Your task to perform on an android device: Search for seafood restaurants on Google Maps Image 0: 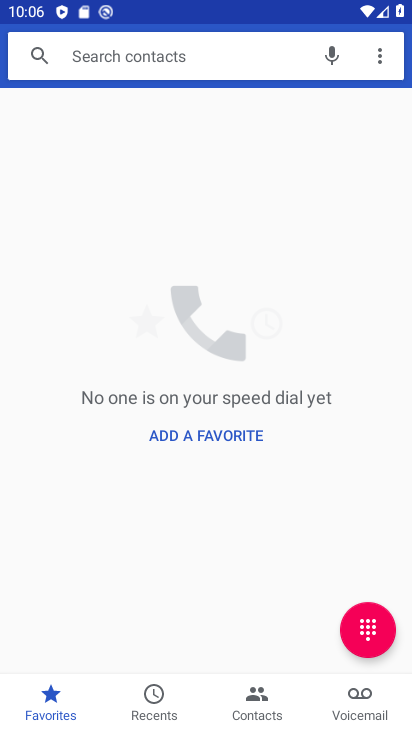
Step 0: drag from (304, 635) to (267, 176)
Your task to perform on an android device: Search for seafood restaurants on Google Maps Image 1: 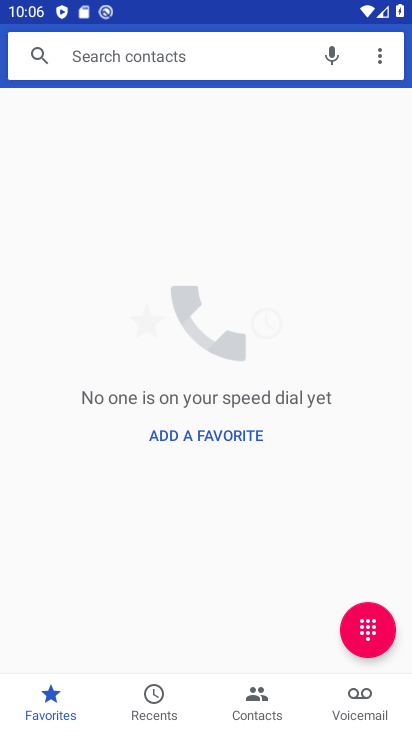
Step 1: press home button
Your task to perform on an android device: Search for seafood restaurants on Google Maps Image 2: 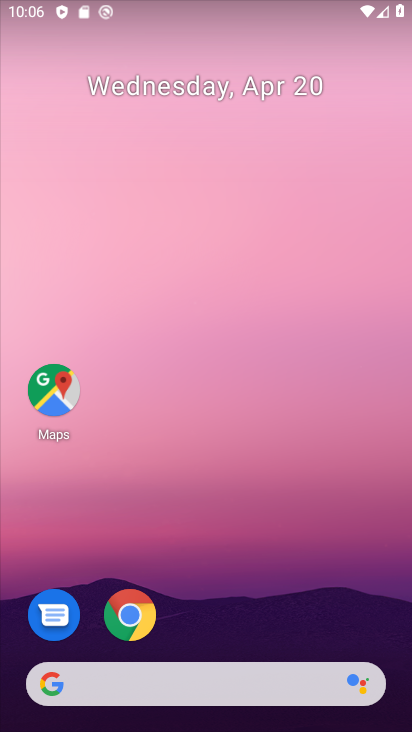
Step 2: click (56, 389)
Your task to perform on an android device: Search for seafood restaurants on Google Maps Image 3: 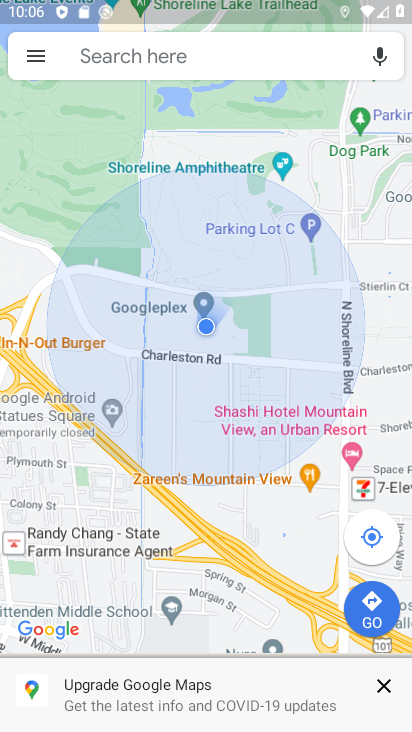
Step 3: click (152, 66)
Your task to perform on an android device: Search for seafood restaurants on Google Maps Image 4: 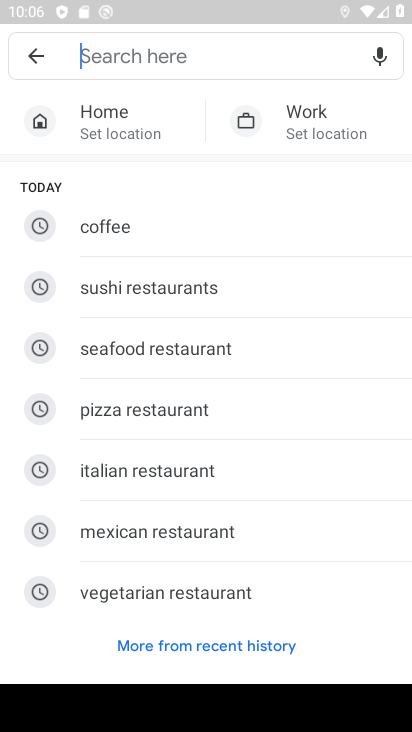
Step 4: click (194, 355)
Your task to perform on an android device: Search for seafood restaurants on Google Maps Image 5: 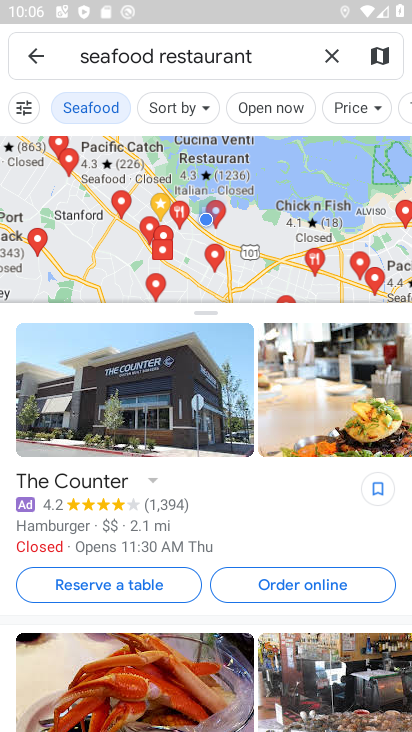
Step 5: task complete